Your task to perform on an android device: check out phone information Image 0: 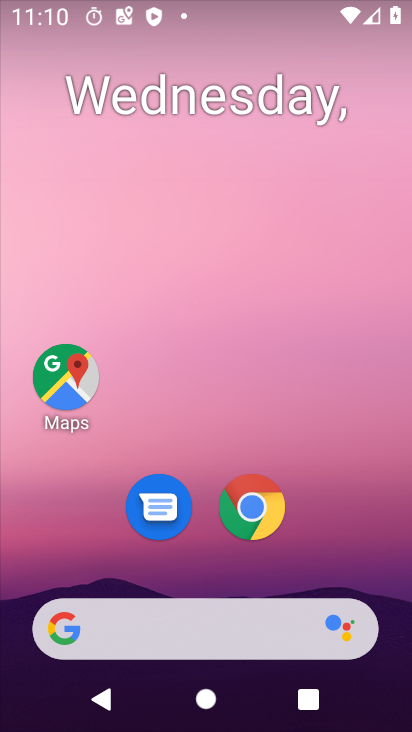
Step 0: drag from (229, 726) to (242, 0)
Your task to perform on an android device: check out phone information Image 1: 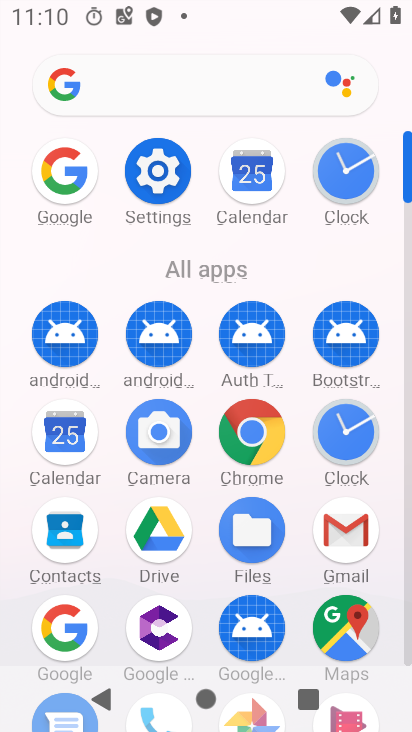
Step 1: click (156, 227)
Your task to perform on an android device: check out phone information Image 2: 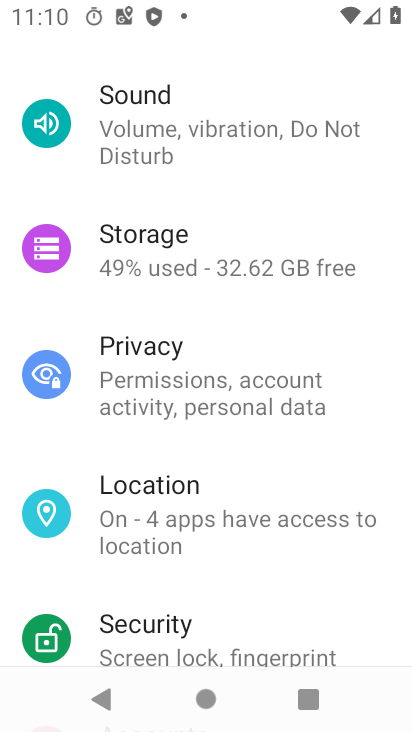
Step 2: drag from (128, 636) to (160, 79)
Your task to perform on an android device: check out phone information Image 3: 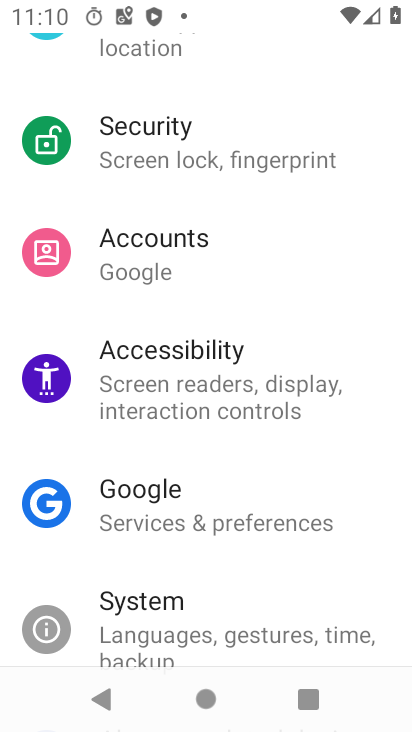
Step 3: drag from (176, 623) to (182, 223)
Your task to perform on an android device: check out phone information Image 4: 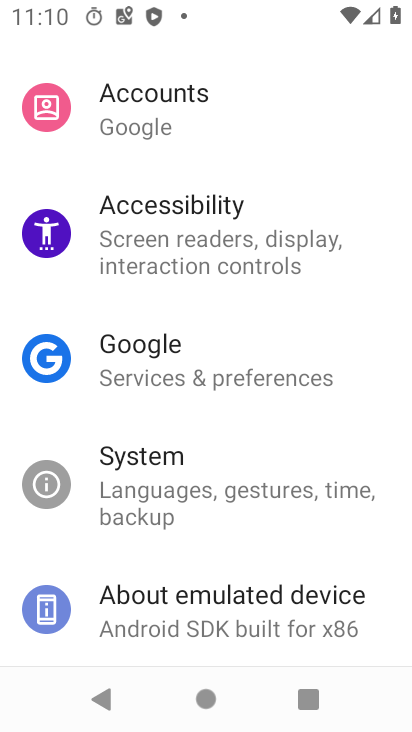
Step 4: drag from (185, 605) to (186, 436)
Your task to perform on an android device: check out phone information Image 5: 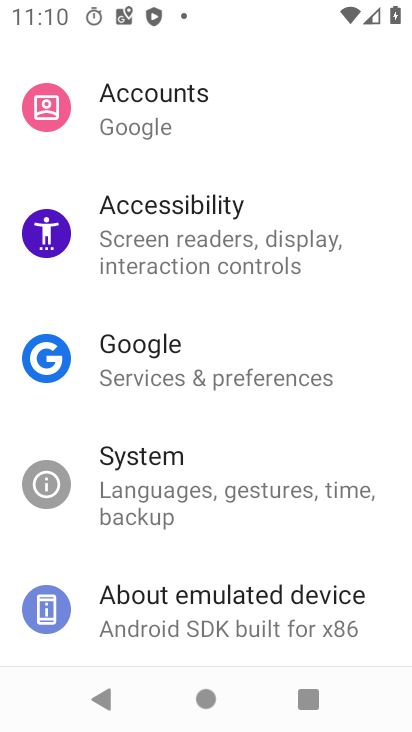
Step 5: click (162, 604)
Your task to perform on an android device: check out phone information Image 6: 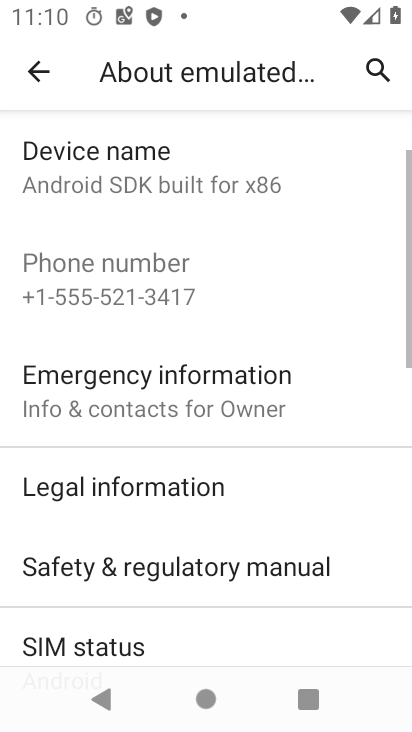
Step 6: task complete